Your task to perform on an android device: install app "Spotify" Image 0: 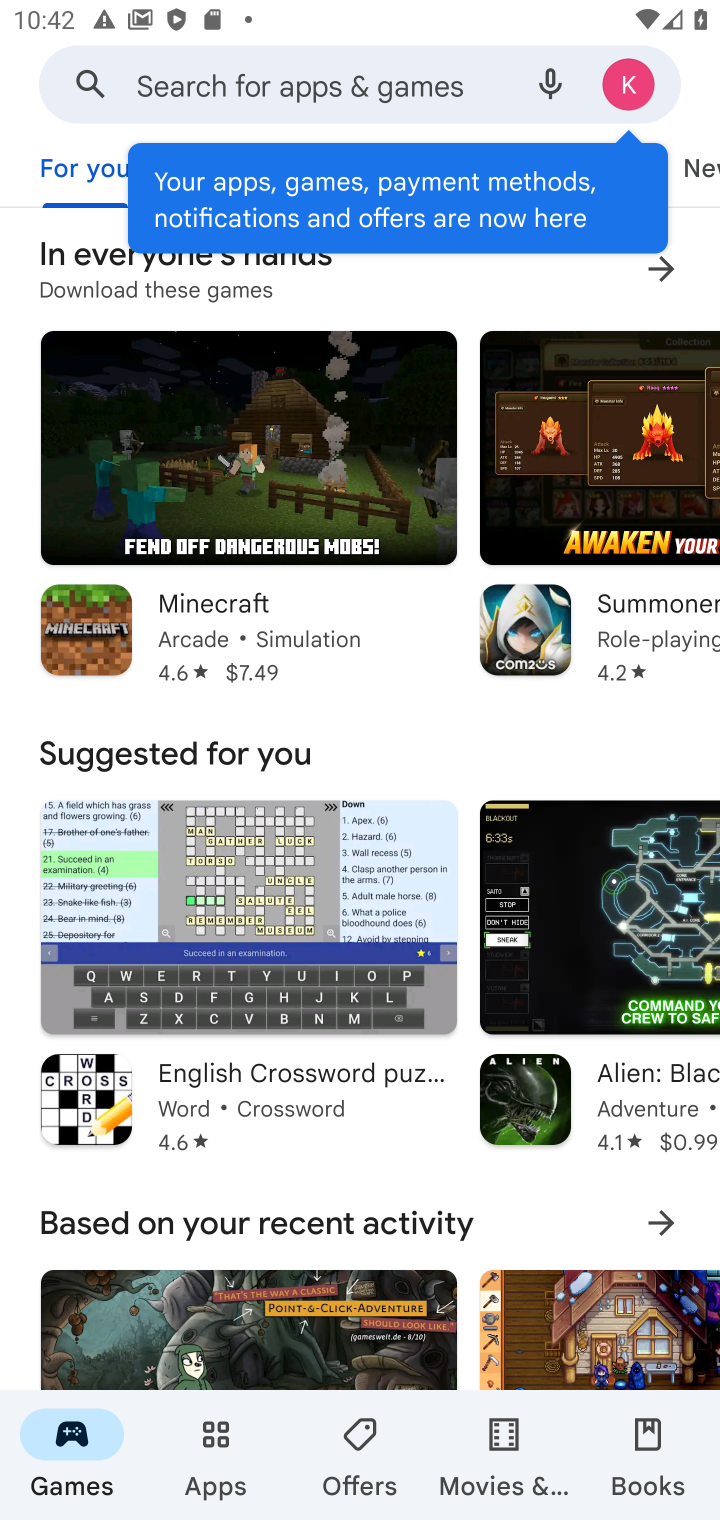
Step 0: press home button
Your task to perform on an android device: install app "Spotify" Image 1: 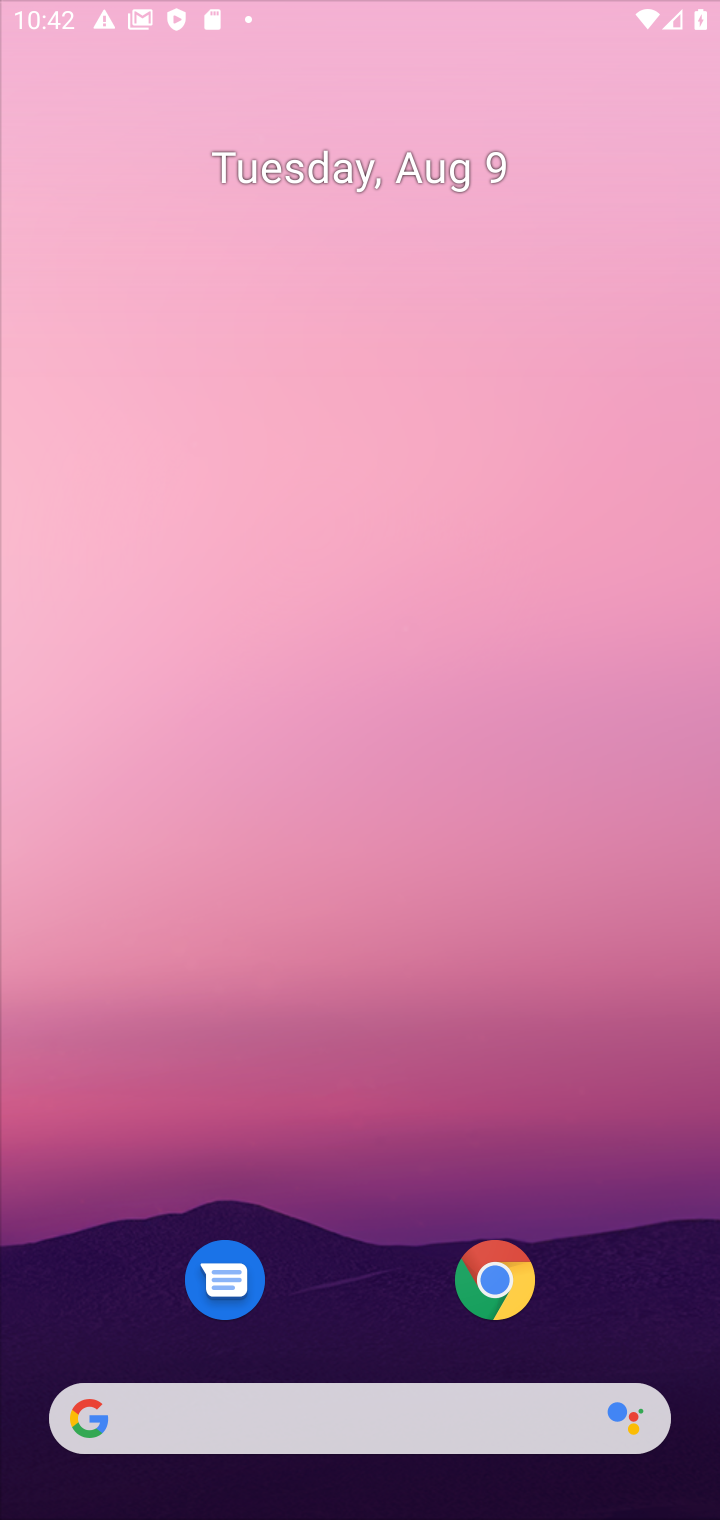
Step 1: drag from (324, 1351) to (34, 833)
Your task to perform on an android device: install app "Spotify" Image 2: 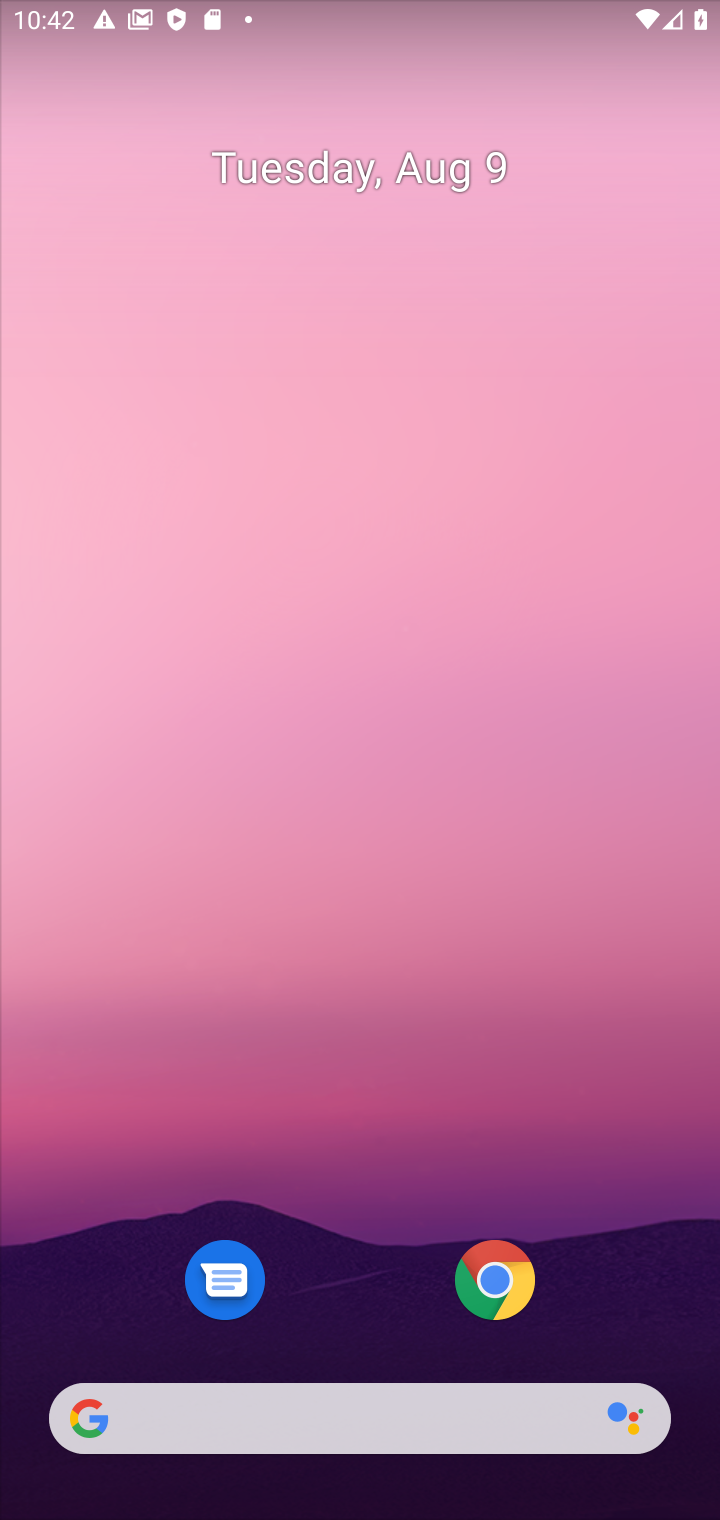
Step 2: drag from (354, 1349) to (338, 33)
Your task to perform on an android device: install app "Spotify" Image 3: 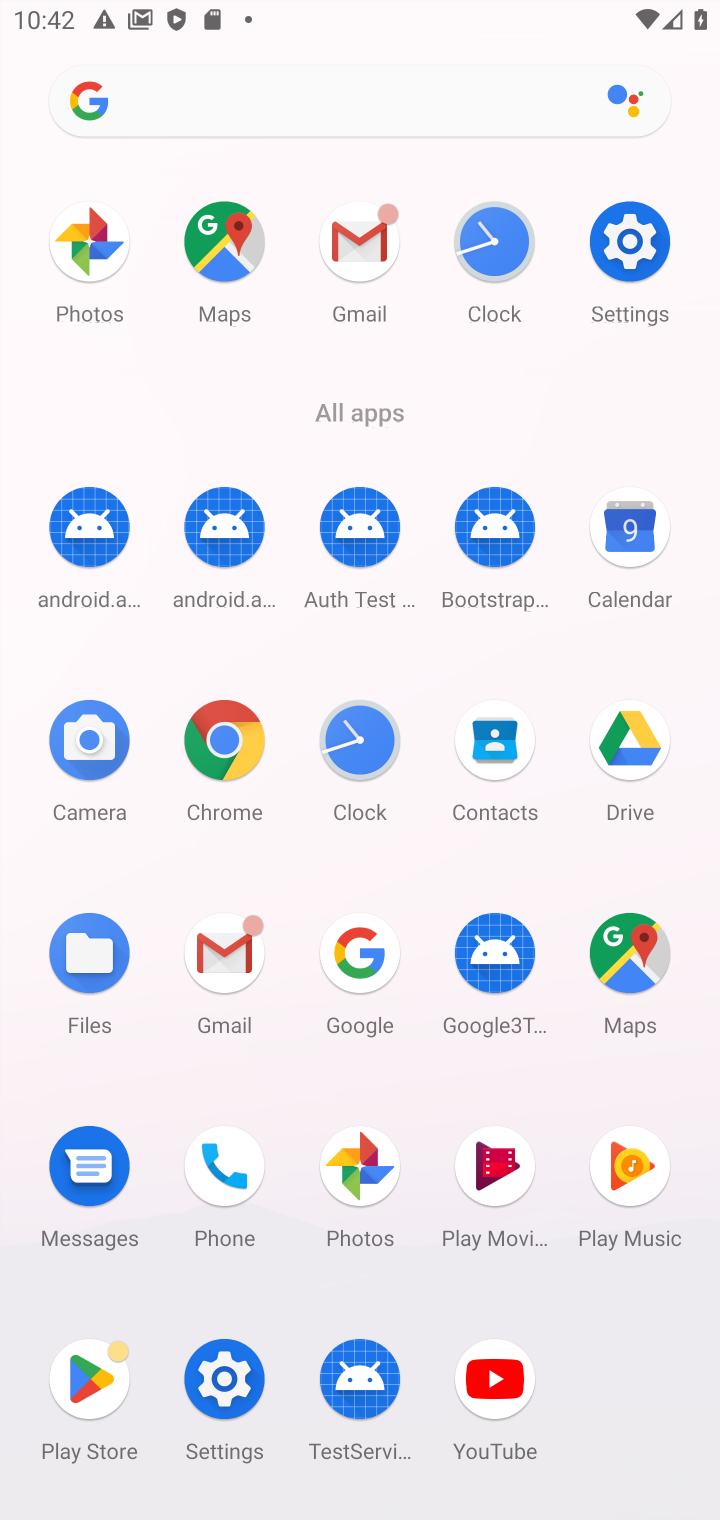
Step 3: click (79, 1378)
Your task to perform on an android device: install app "Spotify" Image 4: 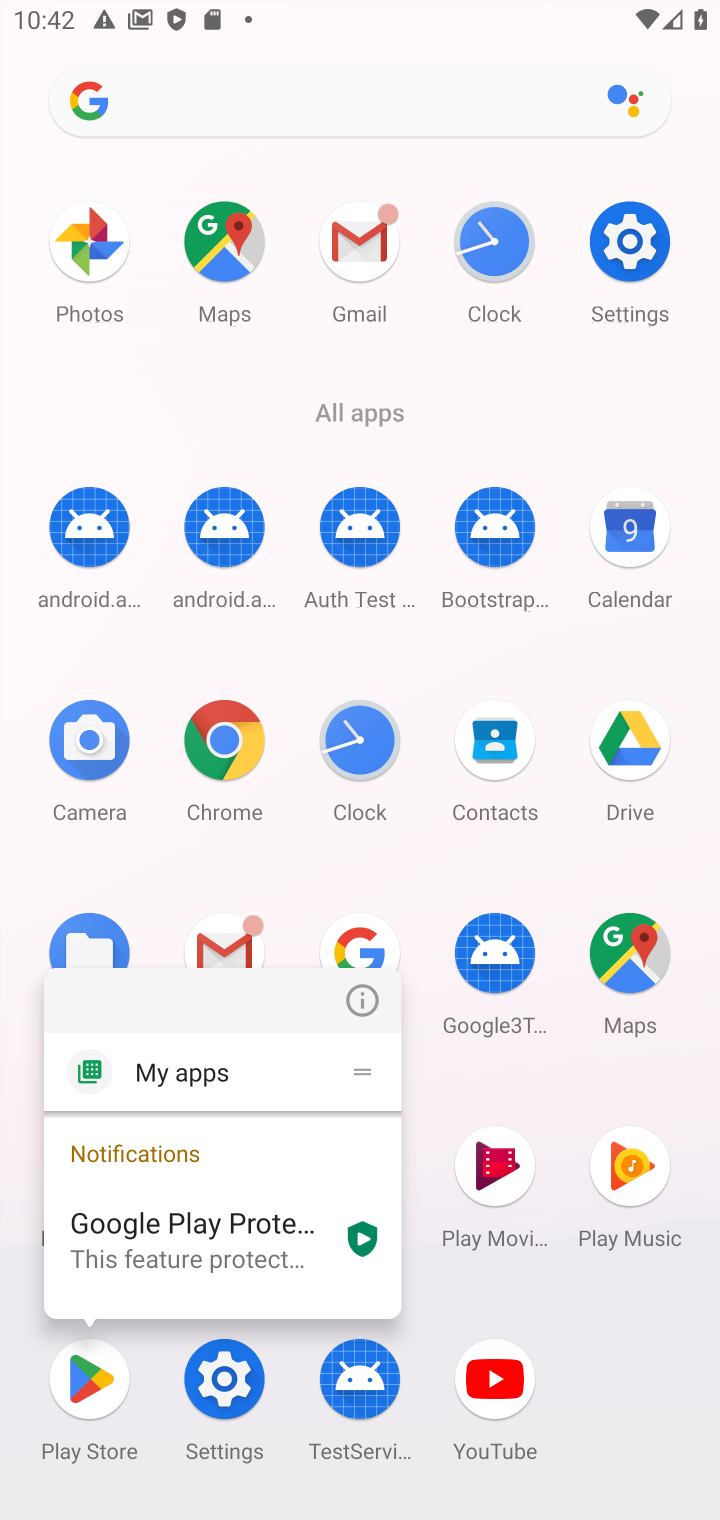
Step 4: click (86, 1378)
Your task to perform on an android device: install app "Spotify" Image 5: 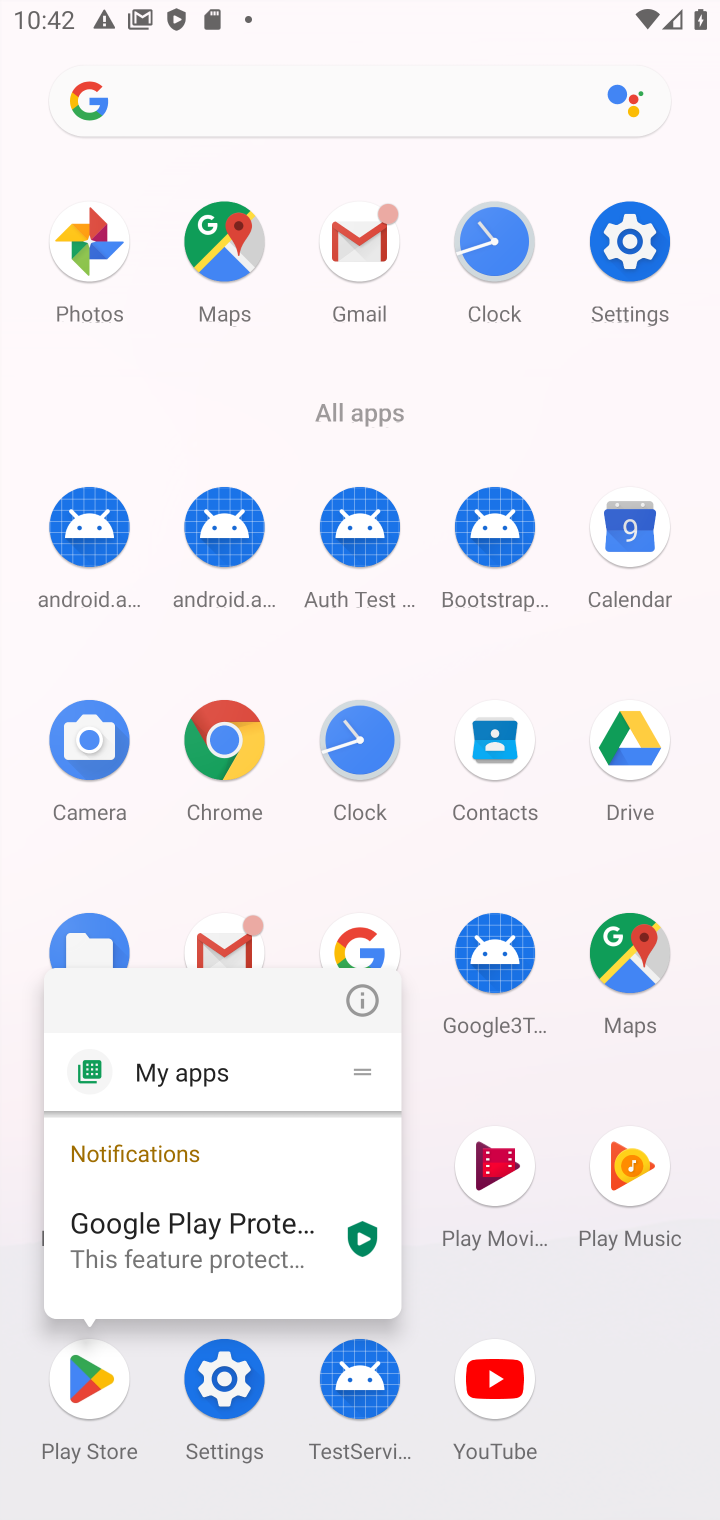
Step 5: click (86, 1378)
Your task to perform on an android device: install app "Spotify" Image 6: 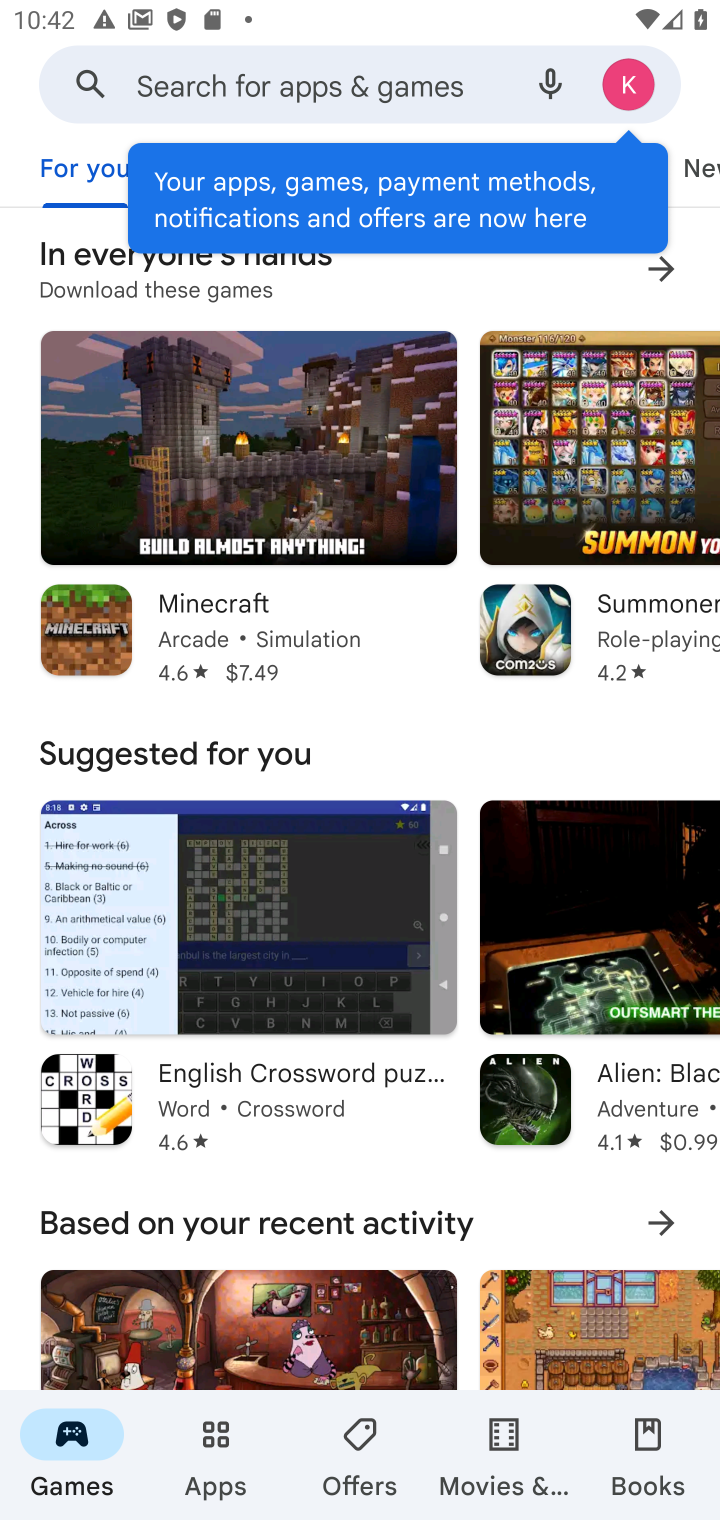
Step 6: click (229, 77)
Your task to perform on an android device: install app "Spotify" Image 7: 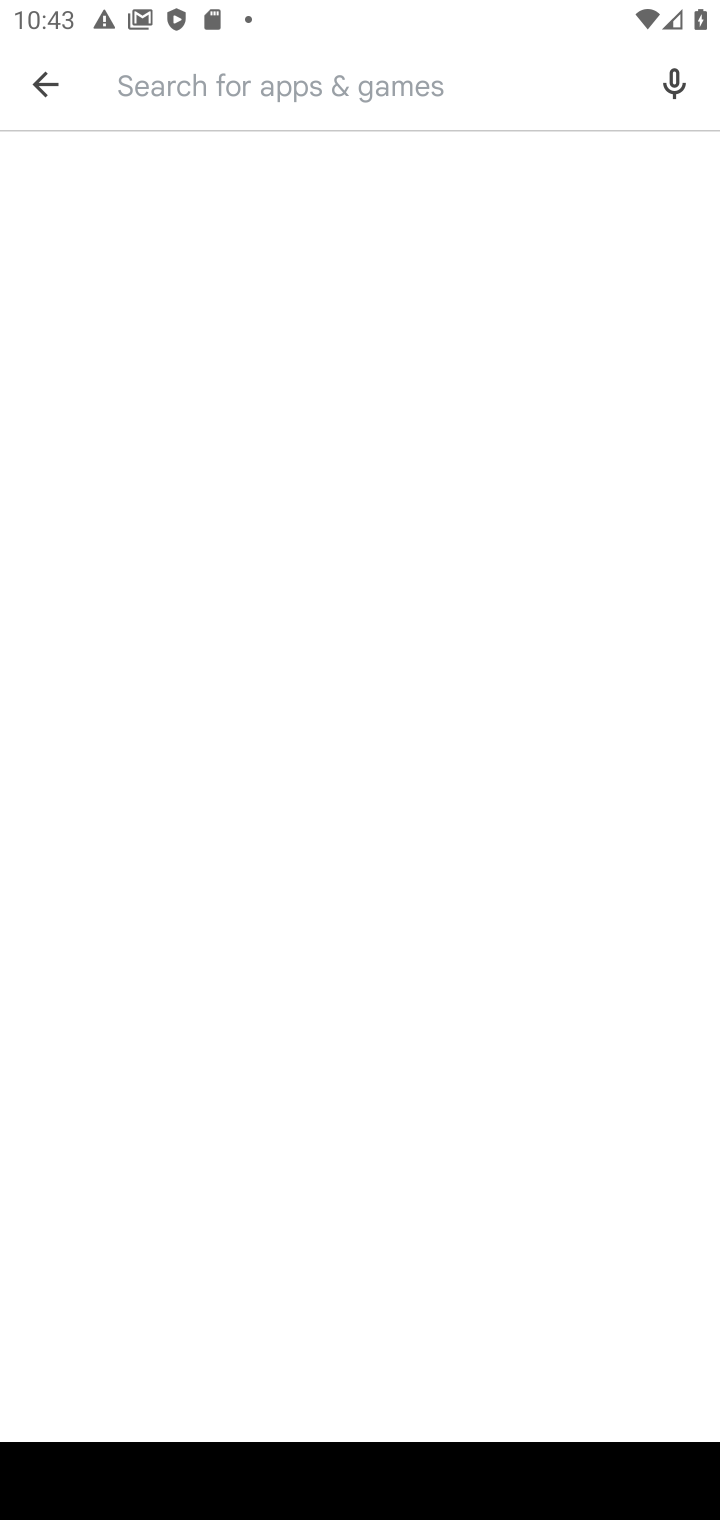
Step 7: click (426, 1504)
Your task to perform on an android device: install app "Spotify" Image 8: 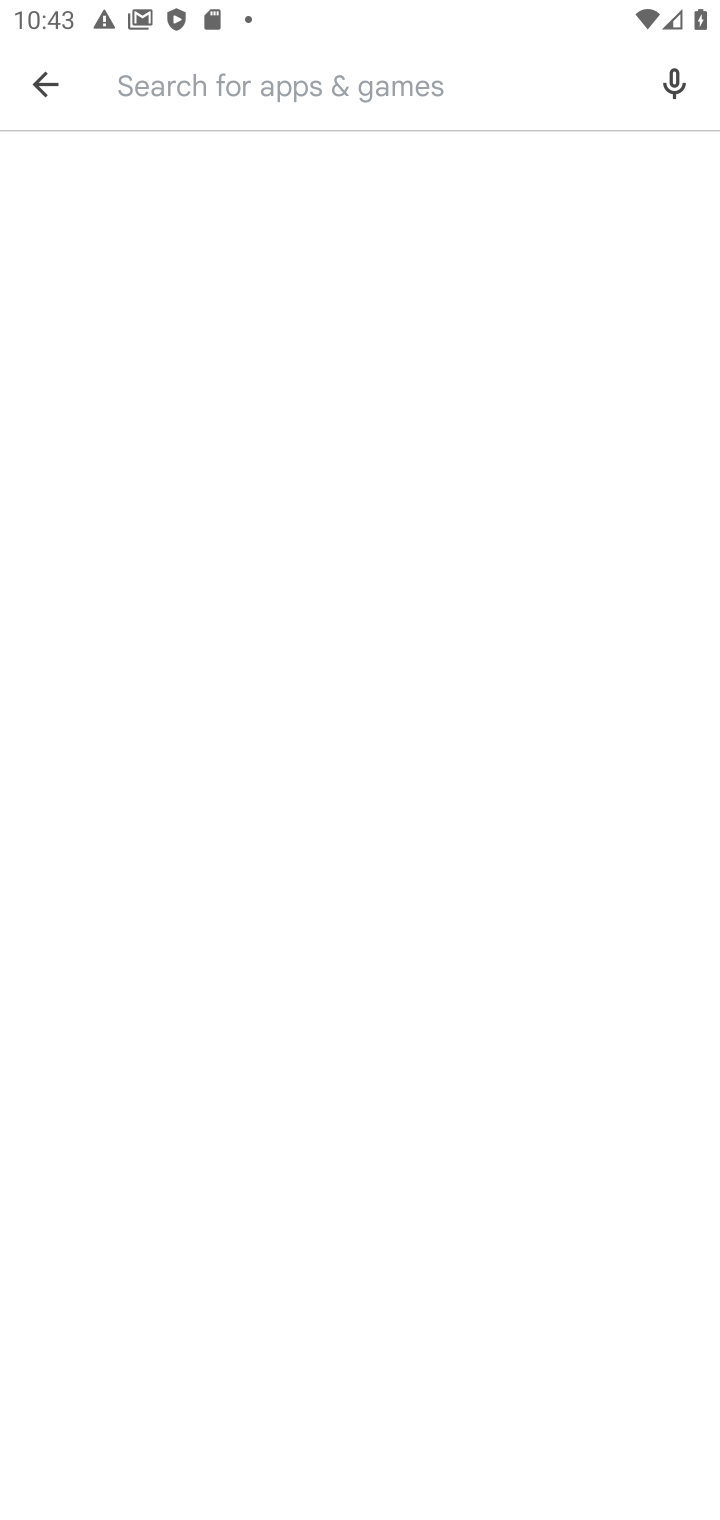
Step 8: type "Spotify"
Your task to perform on an android device: install app "Spotify" Image 9: 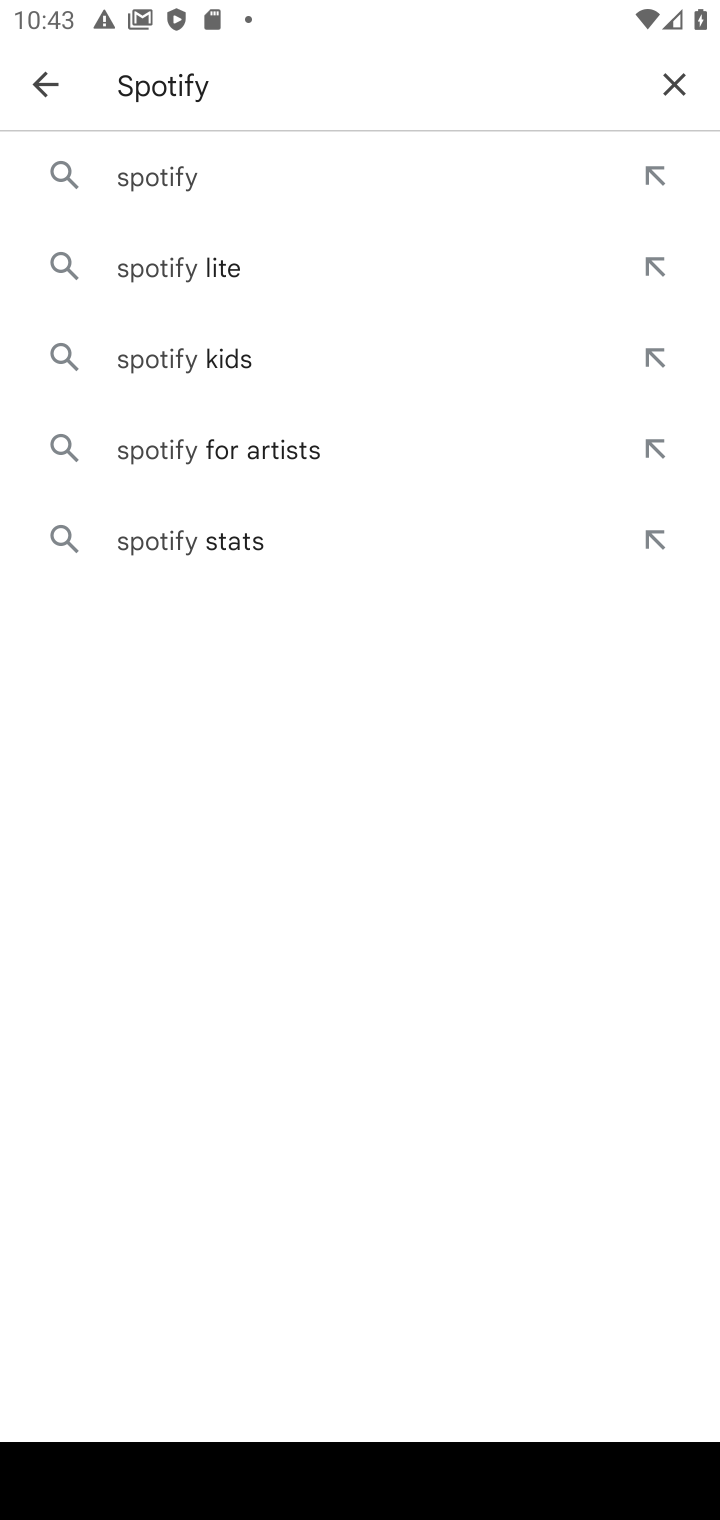
Step 9: click (246, 187)
Your task to perform on an android device: install app "Spotify" Image 10: 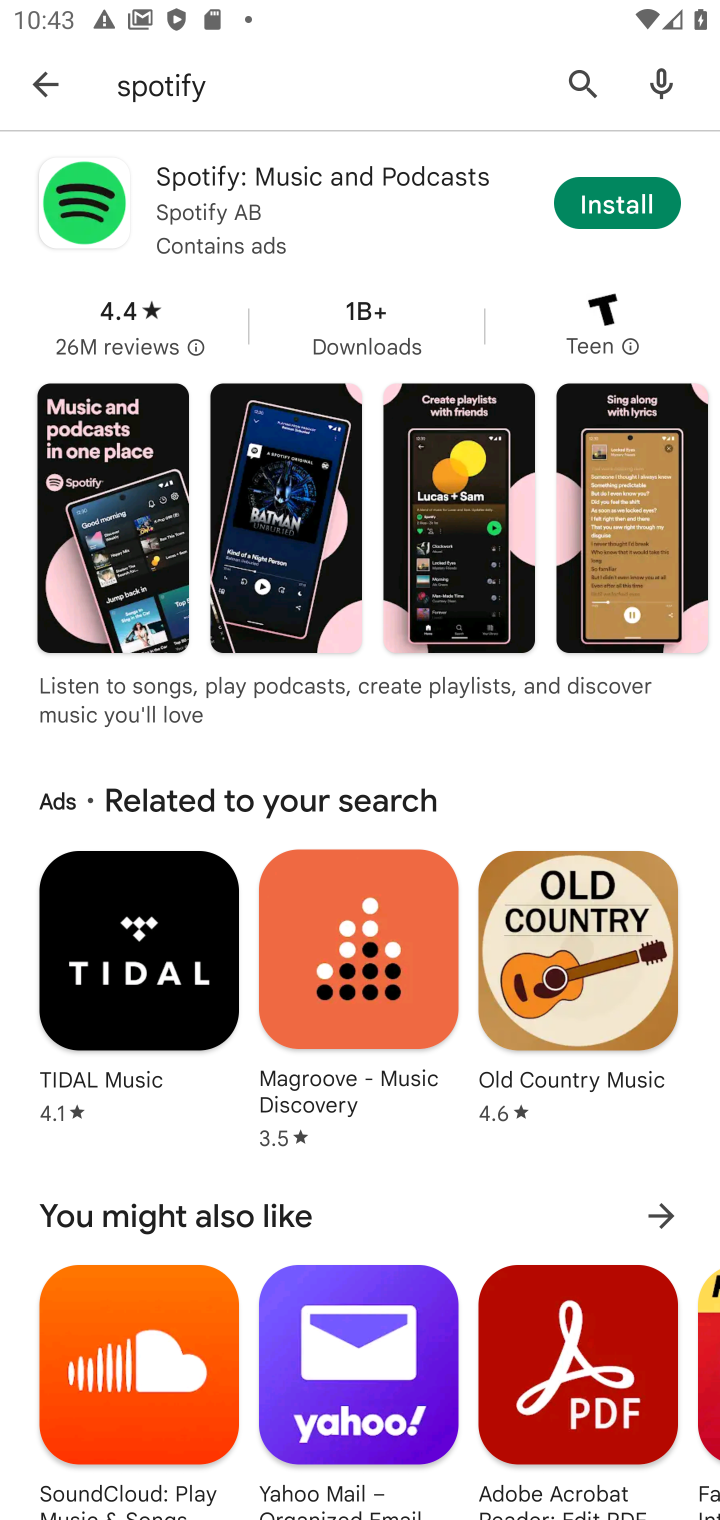
Step 10: click (598, 220)
Your task to perform on an android device: install app "Spotify" Image 11: 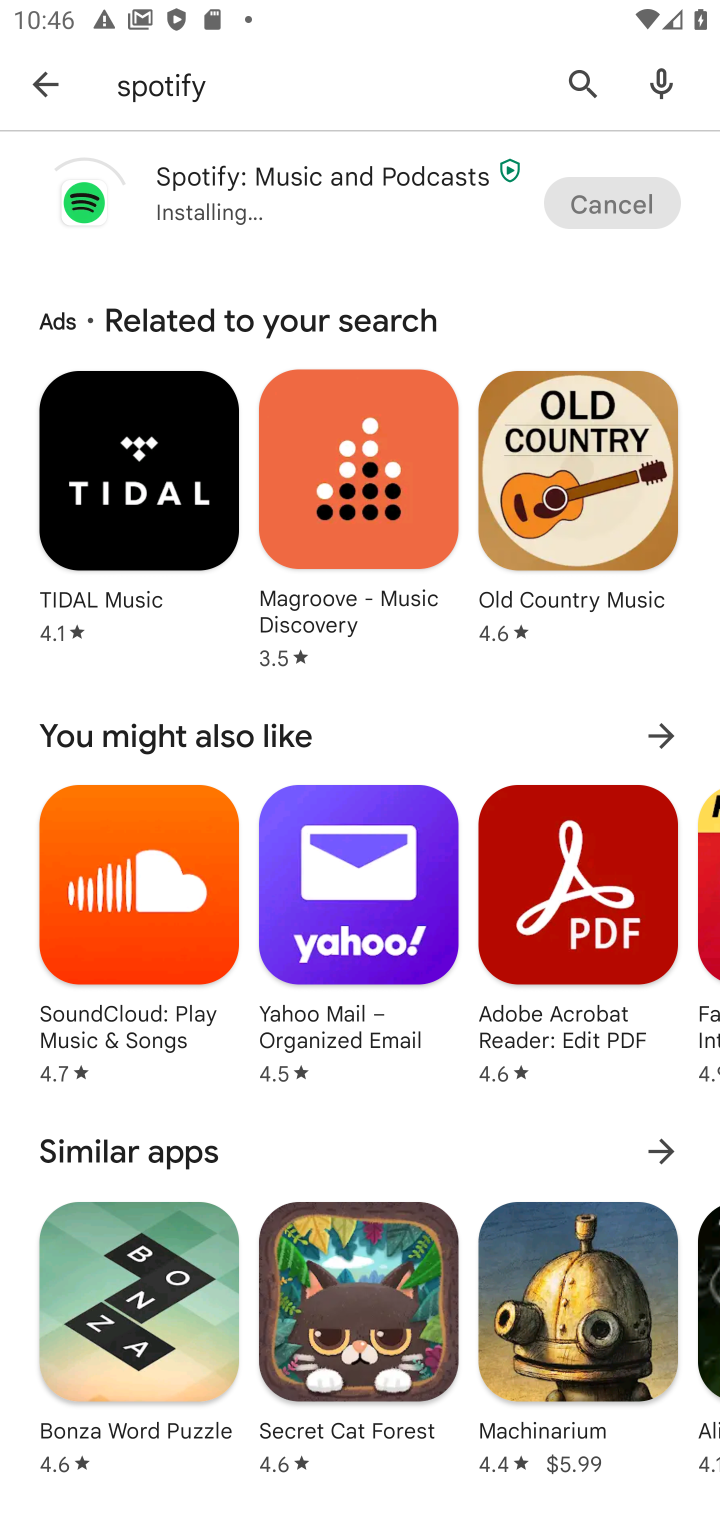
Step 11: click (200, 182)
Your task to perform on an android device: install app "Spotify" Image 12: 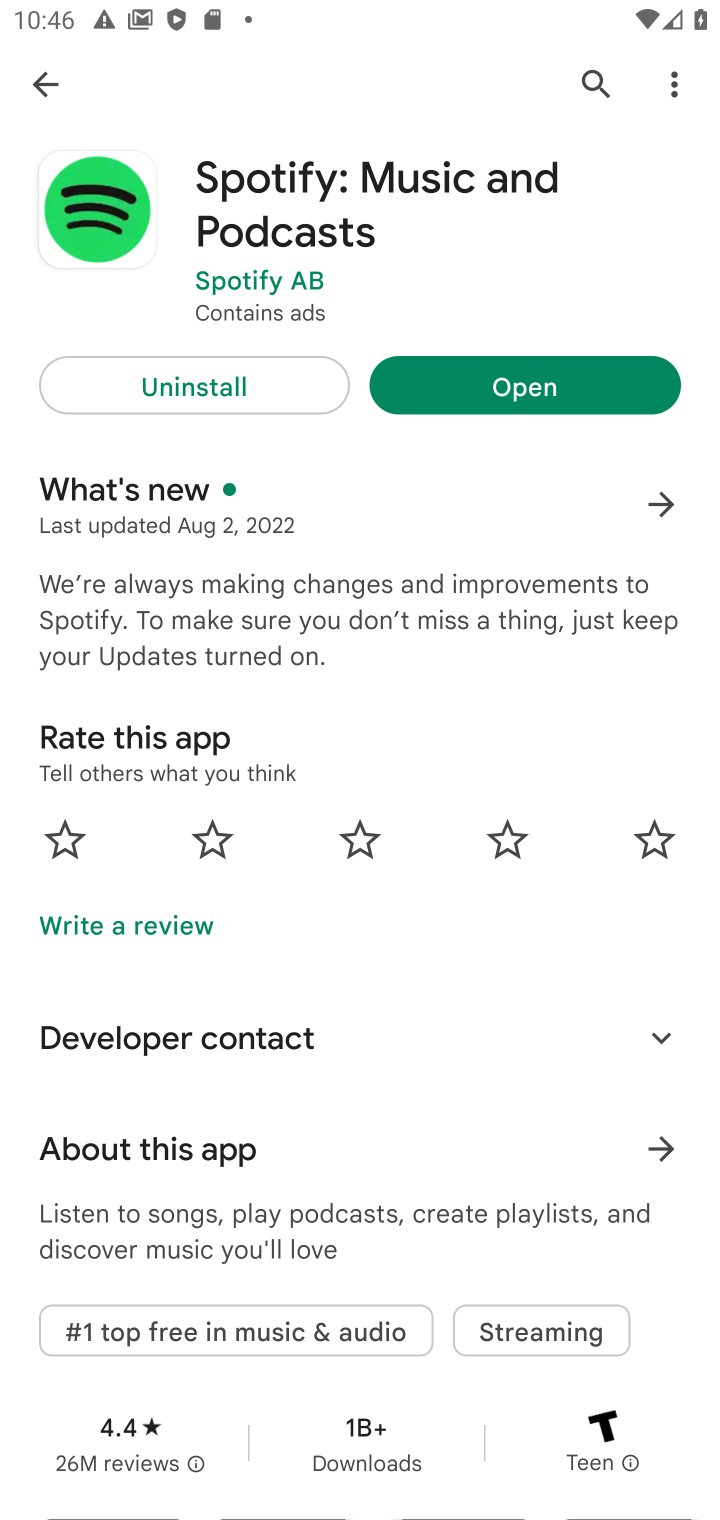
Step 12: click (634, 384)
Your task to perform on an android device: install app "Spotify" Image 13: 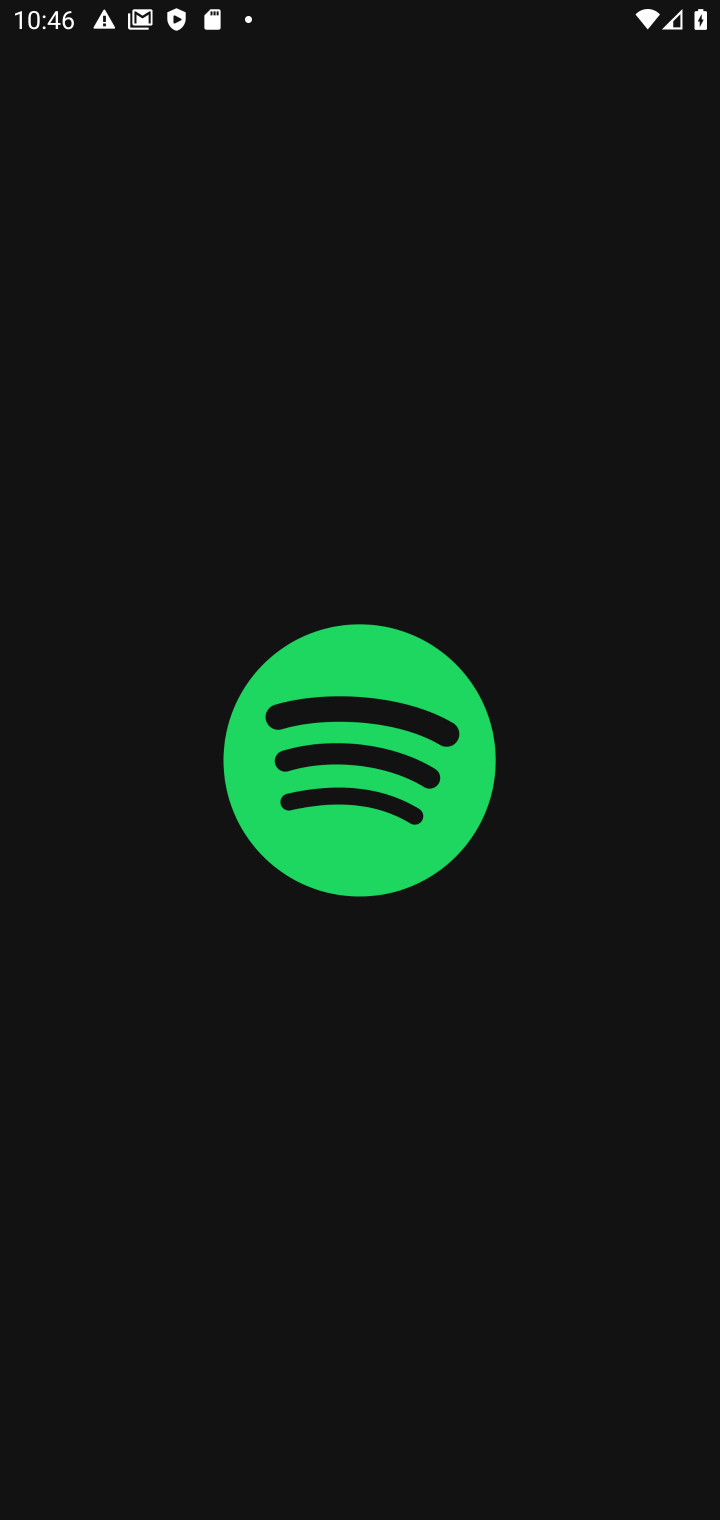
Step 13: task complete